Your task to perform on an android device: Open privacy settings Image 0: 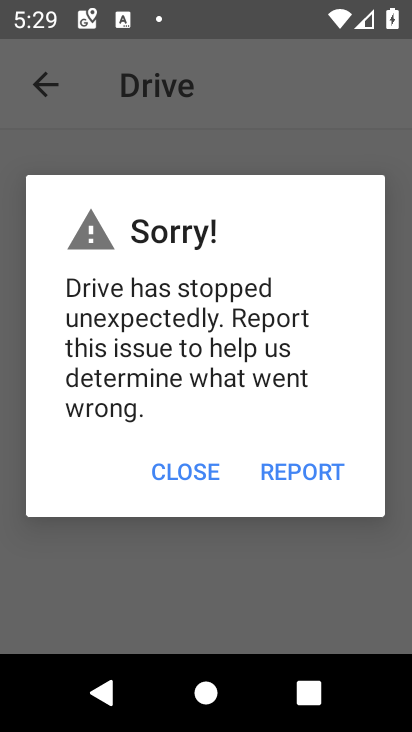
Step 0: press home button
Your task to perform on an android device: Open privacy settings Image 1: 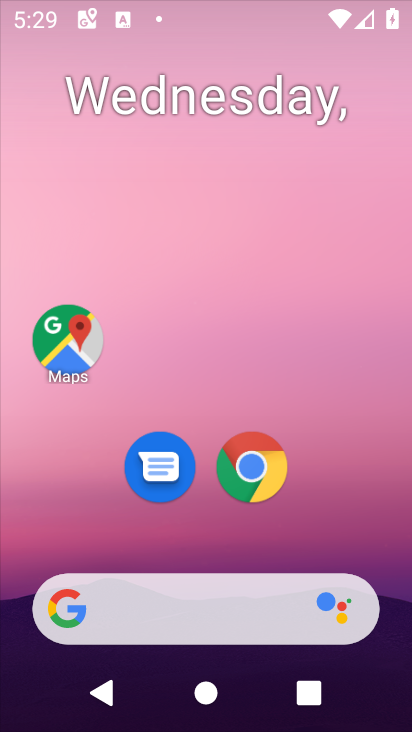
Step 1: drag from (350, 468) to (184, 8)
Your task to perform on an android device: Open privacy settings Image 2: 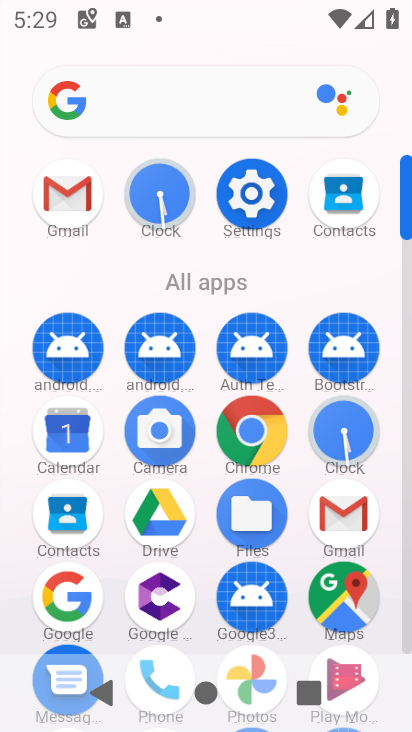
Step 2: click (278, 215)
Your task to perform on an android device: Open privacy settings Image 3: 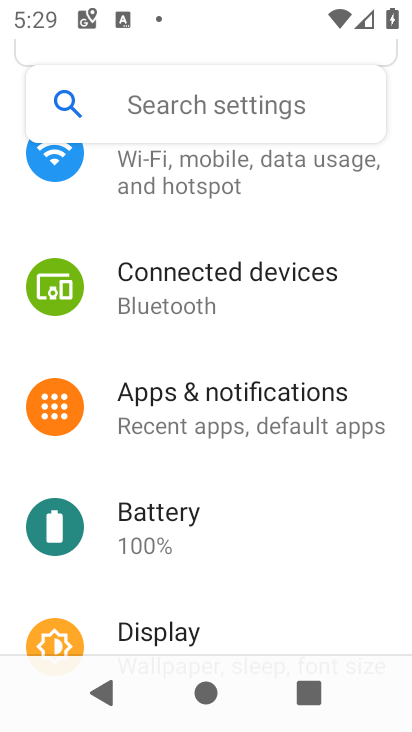
Step 3: drag from (245, 567) to (198, 119)
Your task to perform on an android device: Open privacy settings Image 4: 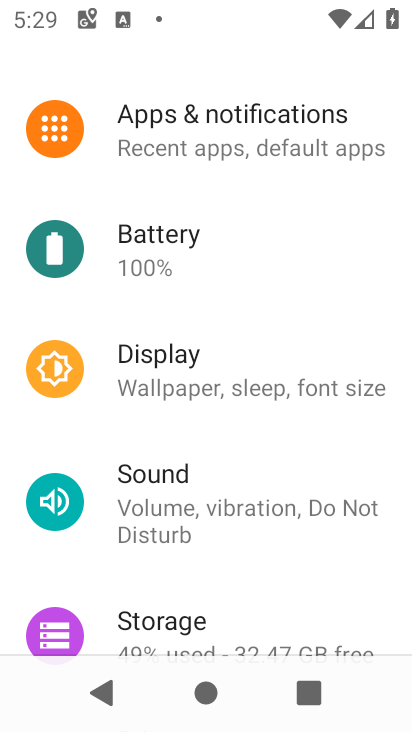
Step 4: drag from (234, 553) to (184, 182)
Your task to perform on an android device: Open privacy settings Image 5: 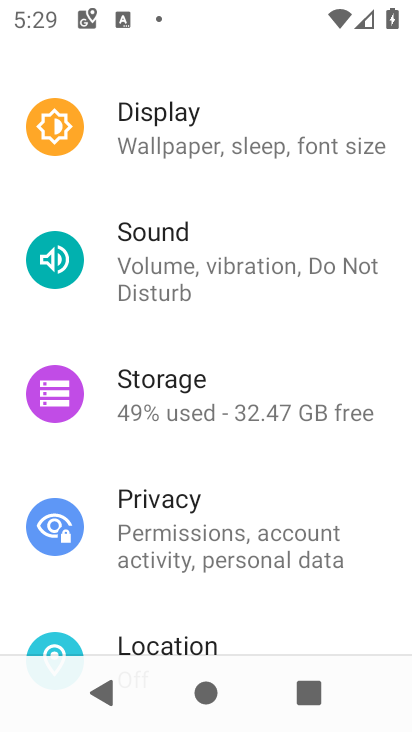
Step 5: click (207, 541)
Your task to perform on an android device: Open privacy settings Image 6: 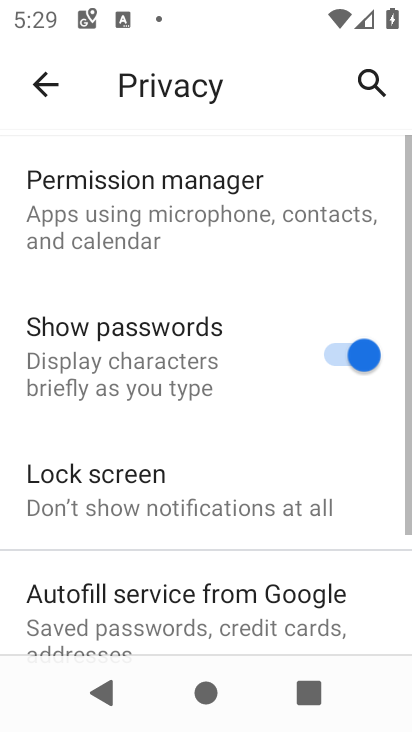
Step 6: task complete